Your task to perform on an android device: Open the stopwatch Image 0: 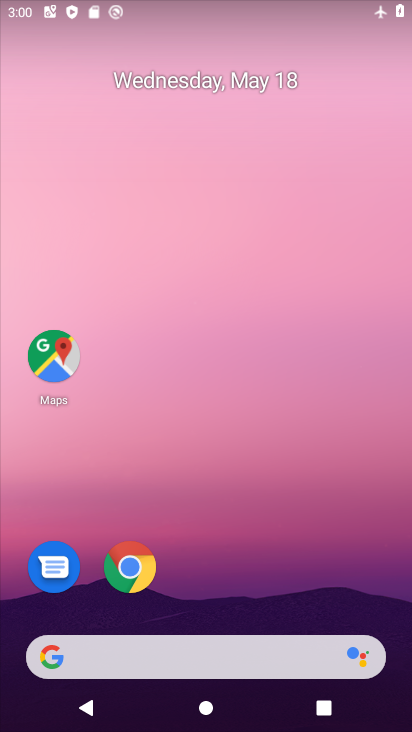
Step 0: drag from (248, 575) to (217, 232)
Your task to perform on an android device: Open the stopwatch Image 1: 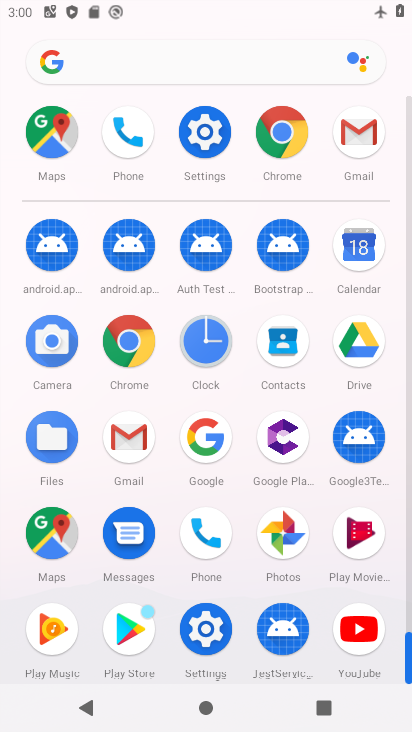
Step 1: click (205, 329)
Your task to perform on an android device: Open the stopwatch Image 2: 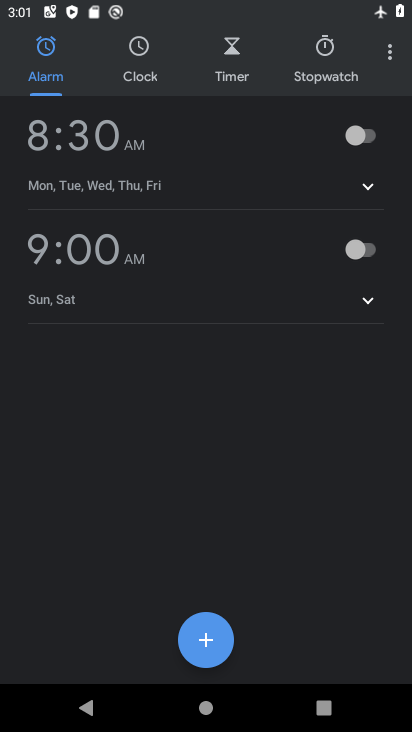
Step 2: click (307, 52)
Your task to perform on an android device: Open the stopwatch Image 3: 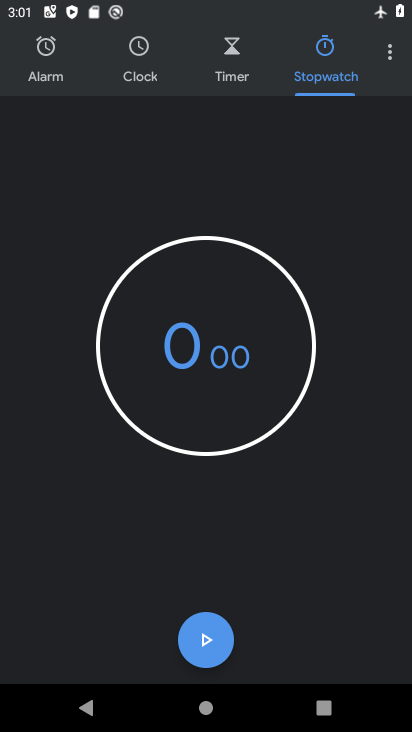
Step 3: task complete